Your task to perform on an android device: open wifi settings Image 0: 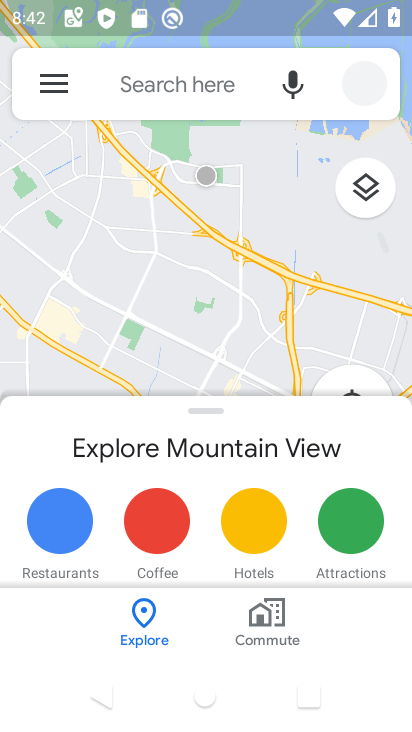
Step 0: press home button
Your task to perform on an android device: open wifi settings Image 1: 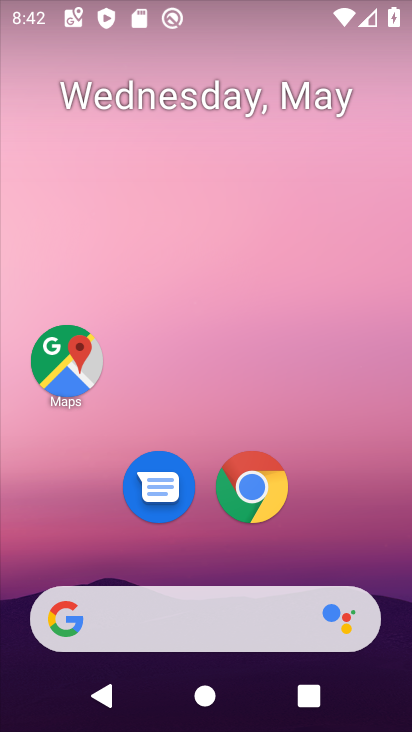
Step 1: drag from (359, 522) to (185, 65)
Your task to perform on an android device: open wifi settings Image 2: 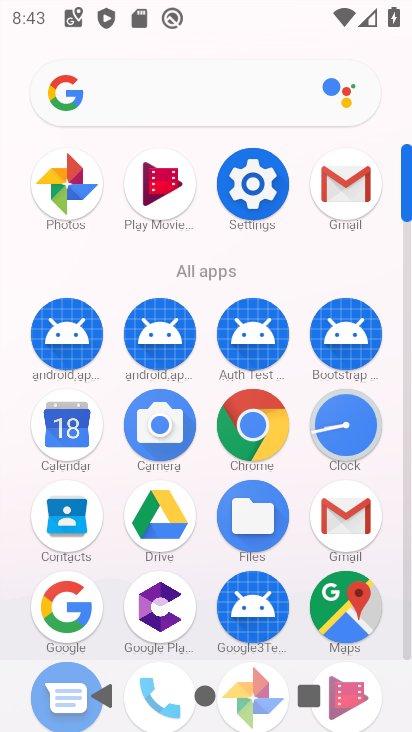
Step 2: click (251, 180)
Your task to perform on an android device: open wifi settings Image 3: 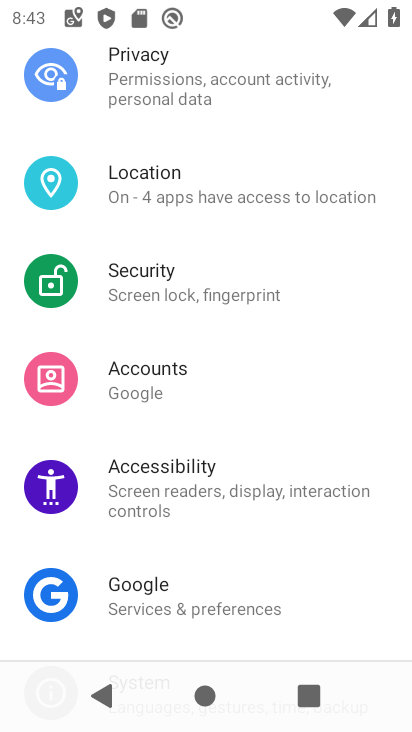
Step 3: drag from (228, 144) to (388, 686)
Your task to perform on an android device: open wifi settings Image 4: 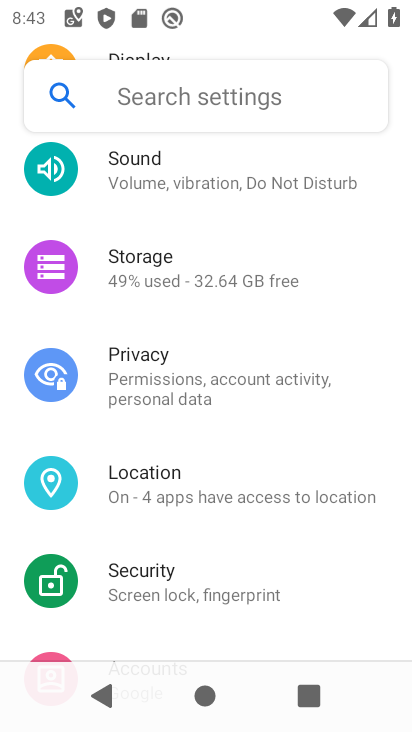
Step 4: drag from (224, 225) to (405, 538)
Your task to perform on an android device: open wifi settings Image 5: 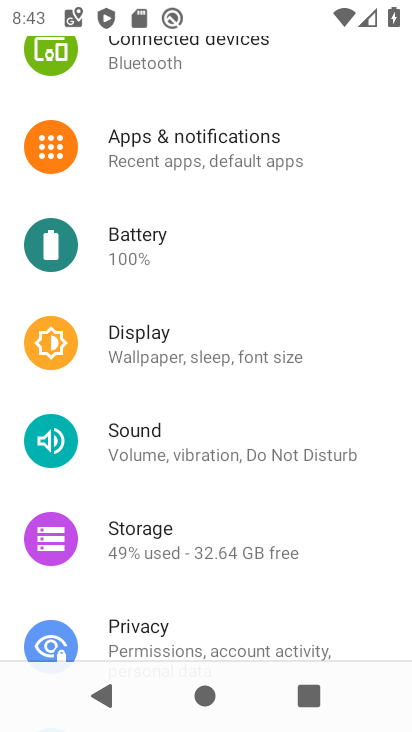
Step 5: drag from (246, 287) to (303, 721)
Your task to perform on an android device: open wifi settings Image 6: 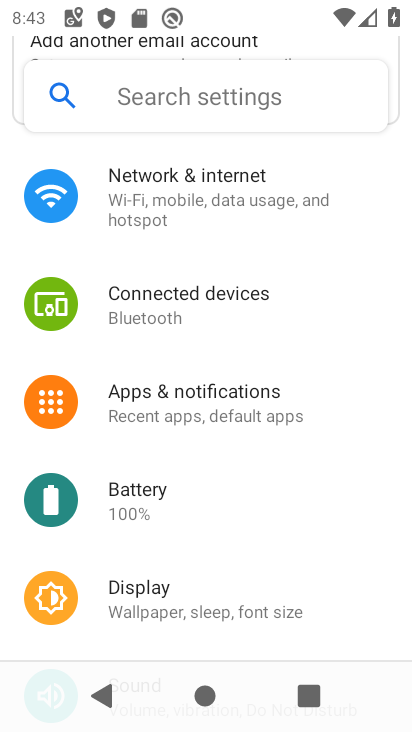
Step 6: click (141, 197)
Your task to perform on an android device: open wifi settings Image 7: 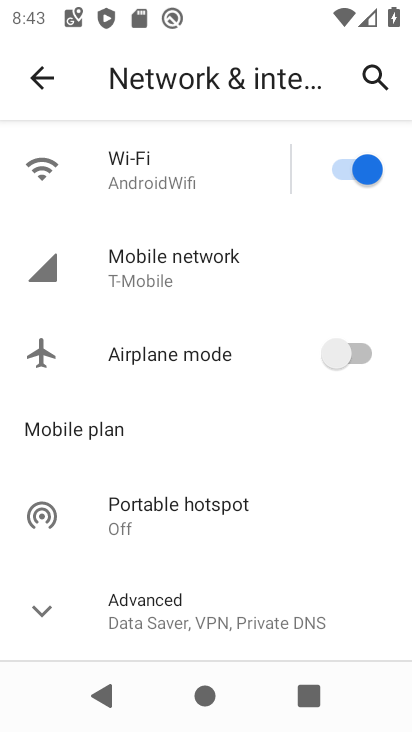
Step 7: click (143, 168)
Your task to perform on an android device: open wifi settings Image 8: 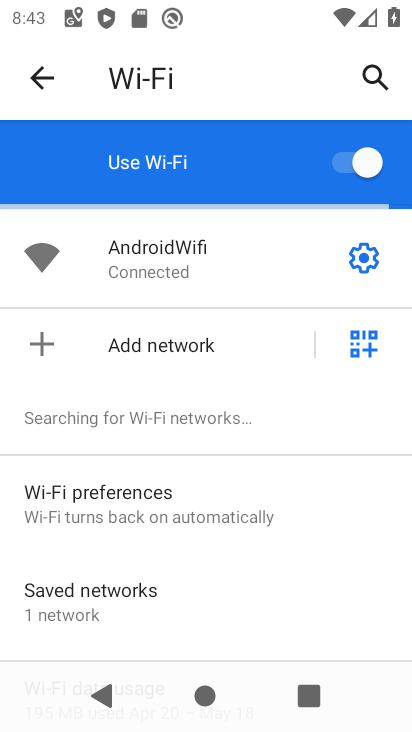
Step 8: task complete